Your task to perform on an android device: Open Yahoo.com Image 0: 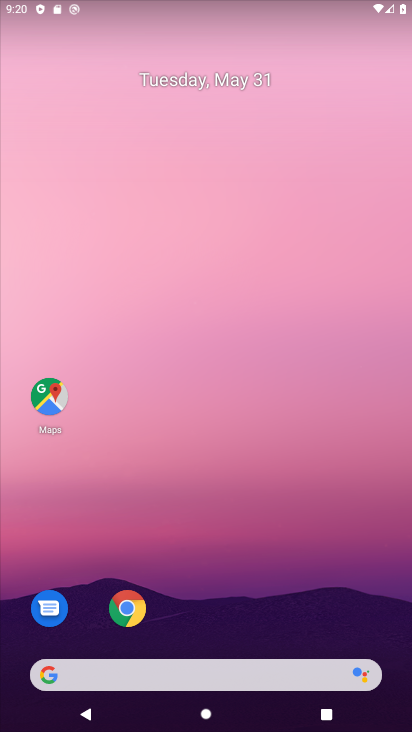
Step 0: click (131, 671)
Your task to perform on an android device: Open Yahoo.com Image 1: 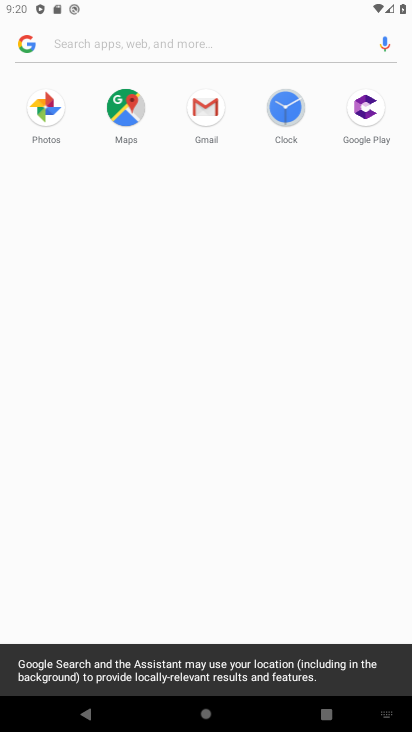
Step 1: type "yahoo.com"
Your task to perform on an android device: Open Yahoo.com Image 2: 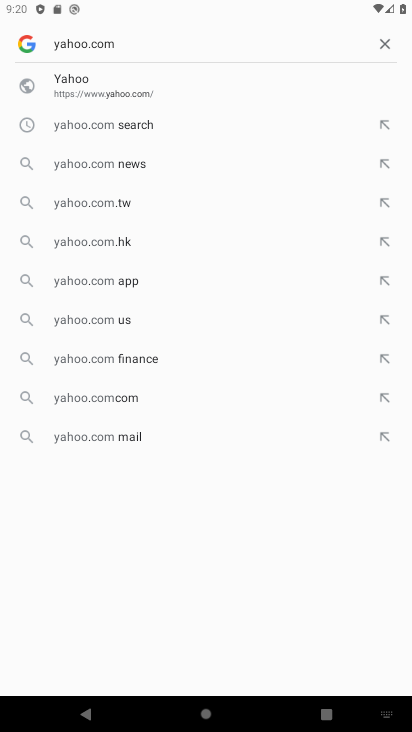
Step 2: click (78, 86)
Your task to perform on an android device: Open Yahoo.com Image 3: 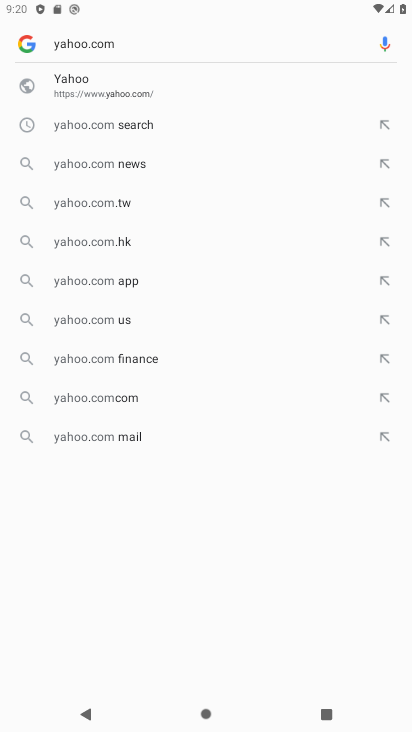
Step 3: task complete